Your task to perform on an android device: Go to internet settings Image 0: 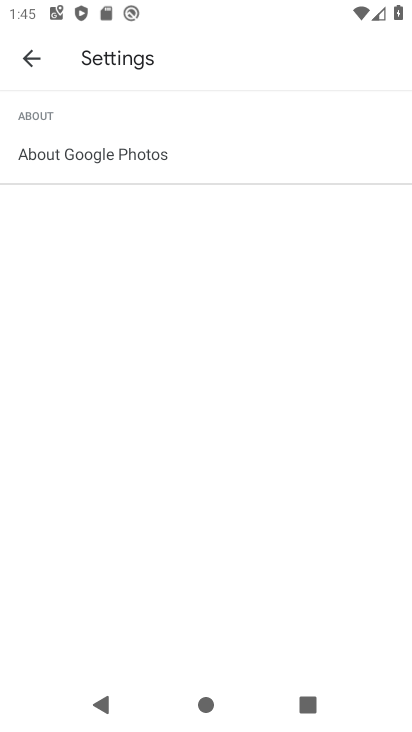
Step 0: press home button
Your task to perform on an android device: Go to internet settings Image 1: 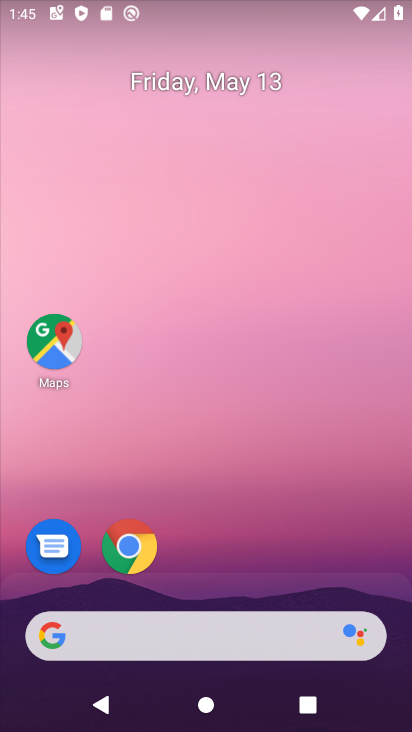
Step 1: drag from (325, 532) to (308, 115)
Your task to perform on an android device: Go to internet settings Image 2: 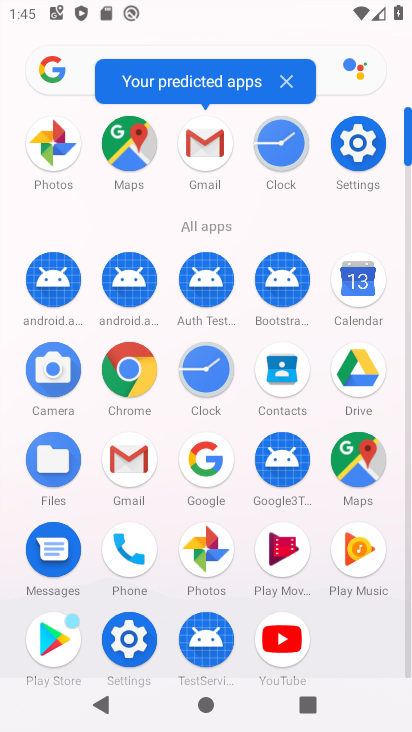
Step 2: click (368, 142)
Your task to perform on an android device: Go to internet settings Image 3: 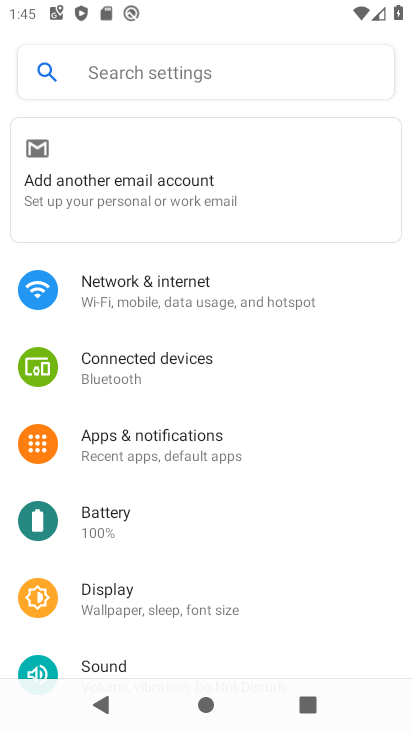
Step 3: click (200, 287)
Your task to perform on an android device: Go to internet settings Image 4: 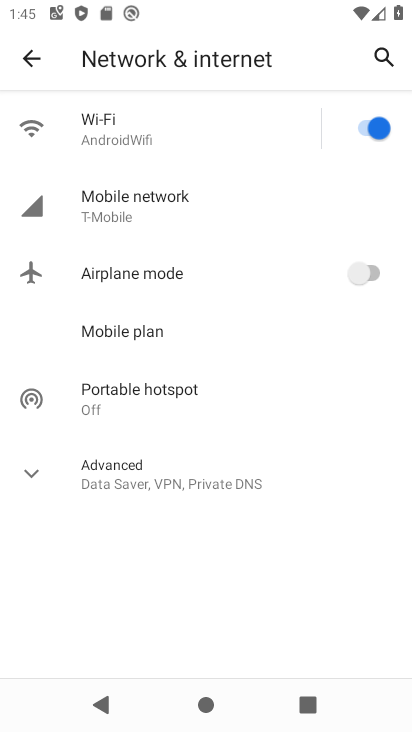
Step 4: click (156, 192)
Your task to perform on an android device: Go to internet settings Image 5: 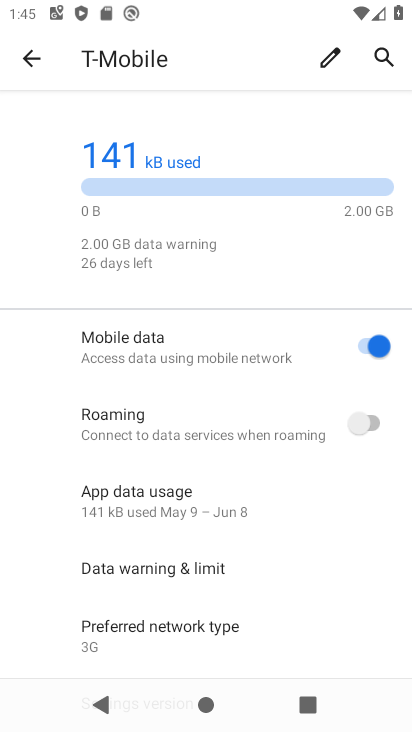
Step 5: task complete